Your task to perform on an android device: toggle translation in the chrome app Image 0: 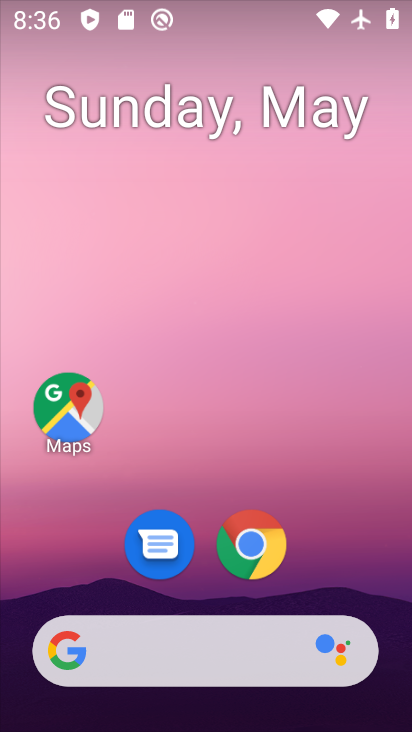
Step 0: drag from (326, 575) to (241, 18)
Your task to perform on an android device: toggle translation in the chrome app Image 1: 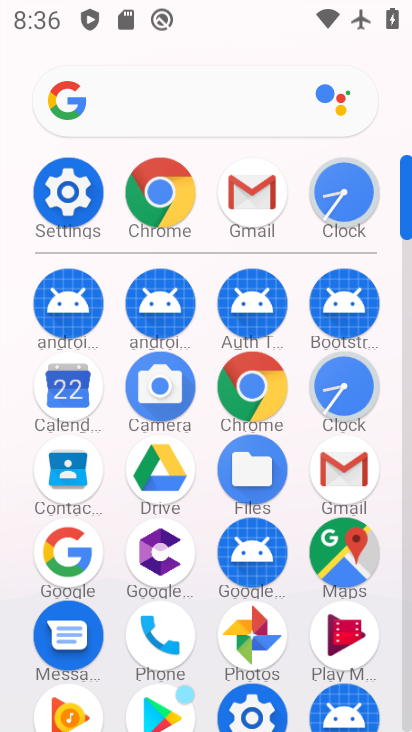
Step 1: drag from (17, 626) to (9, 310)
Your task to perform on an android device: toggle translation in the chrome app Image 2: 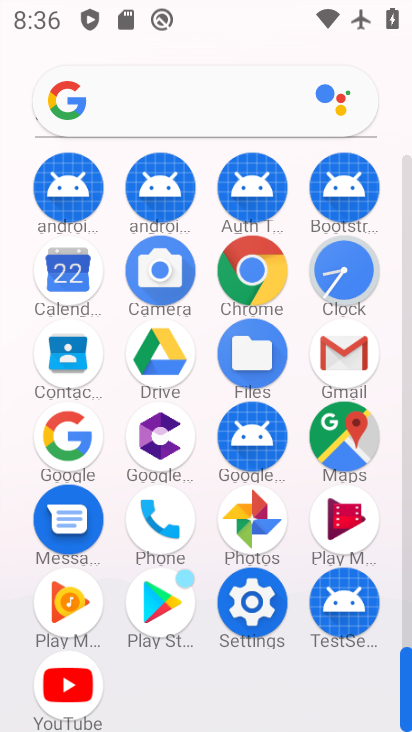
Step 2: click (248, 267)
Your task to perform on an android device: toggle translation in the chrome app Image 3: 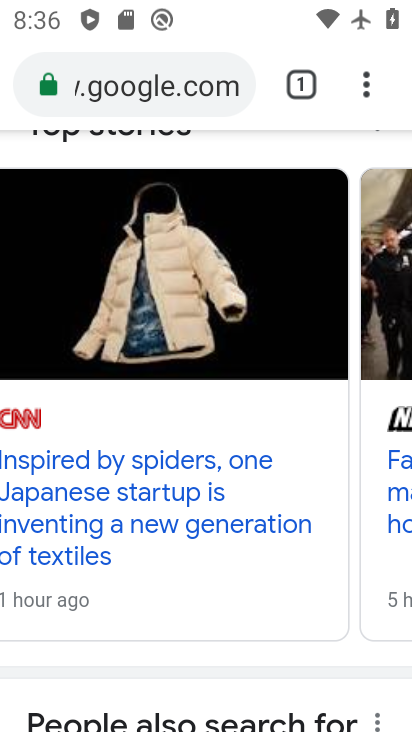
Step 3: drag from (369, 81) to (149, 566)
Your task to perform on an android device: toggle translation in the chrome app Image 4: 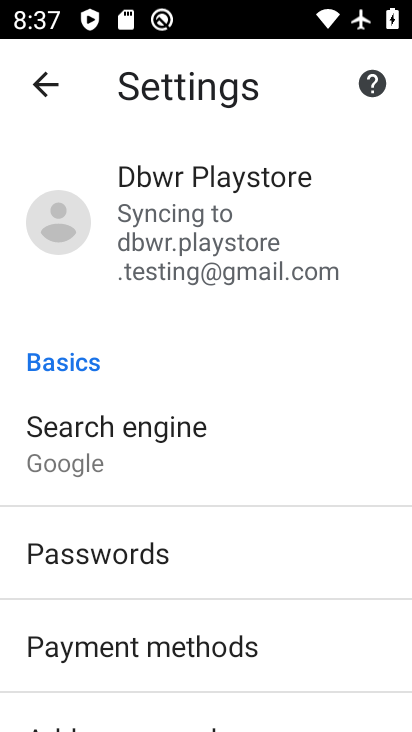
Step 4: drag from (271, 558) to (275, 188)
Your task to perform on an android device: toggle translation in the chrome app Image 5: 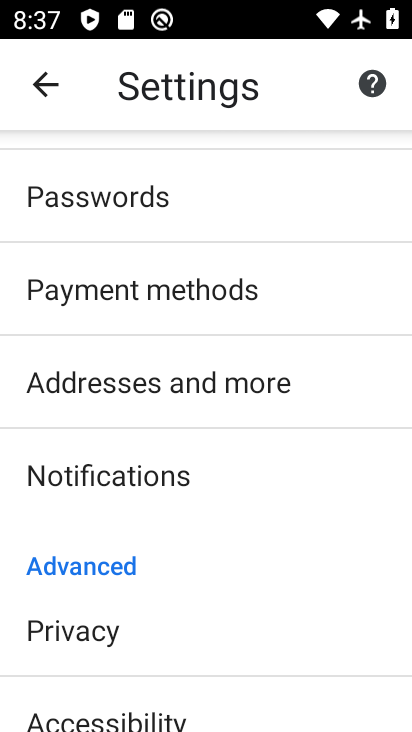
Step 5: drag from (274, 630) to (272, 159)
Your task to perform on an android device: toggle translation in the chrome app Image 6: 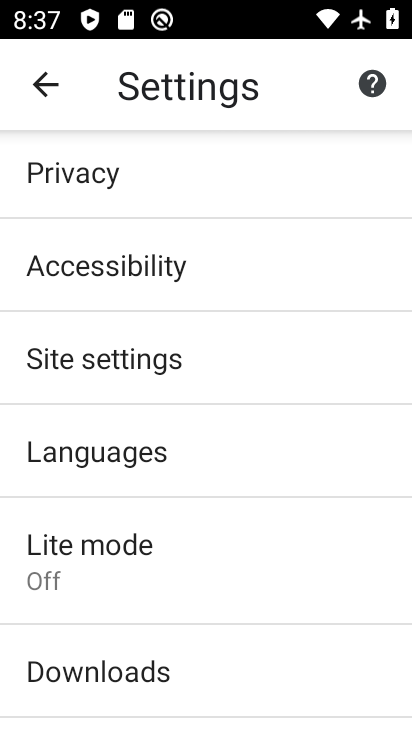
Step 6: click (127, 456)
Your task to perform on an android device: toggle translation in the chrome app Image 7: 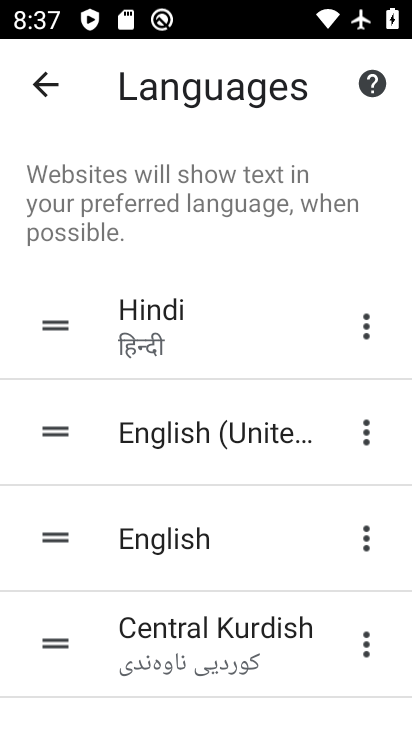
Step 7: drag from (221, 579) to (245, 249)
Your task to perform on an android device: toggle translation in the chrome app Image 8: 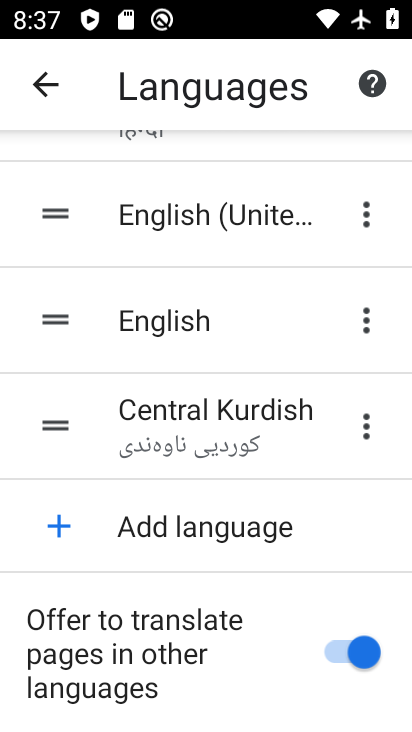
Step 8: click (332, 652)
Your task to perform on an android device: toggle translation in the chrome app Image 9: 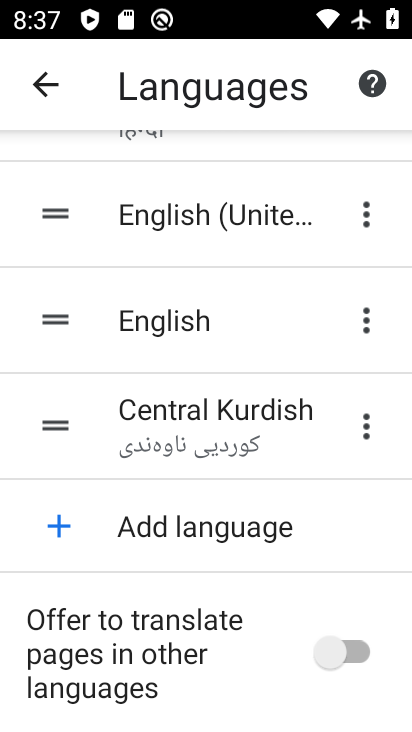
Step 9: task complete